Your task to perform on an android device: find snoozed emails in the gmail app Image 0: 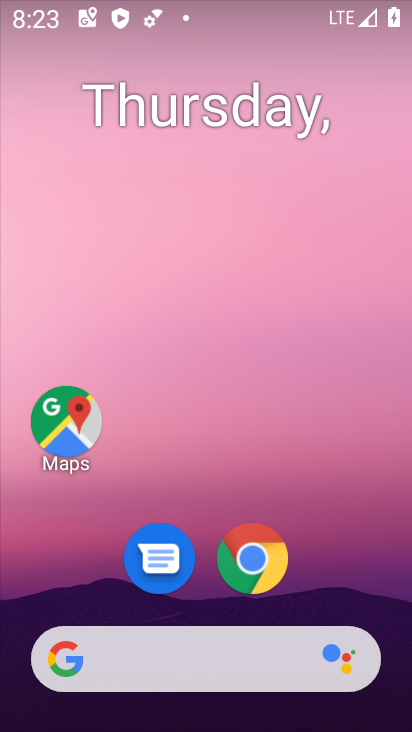
Step 0: click (236, 625)
Your task to perform on an android device: find snoozed emails in the gmail app Image 1: 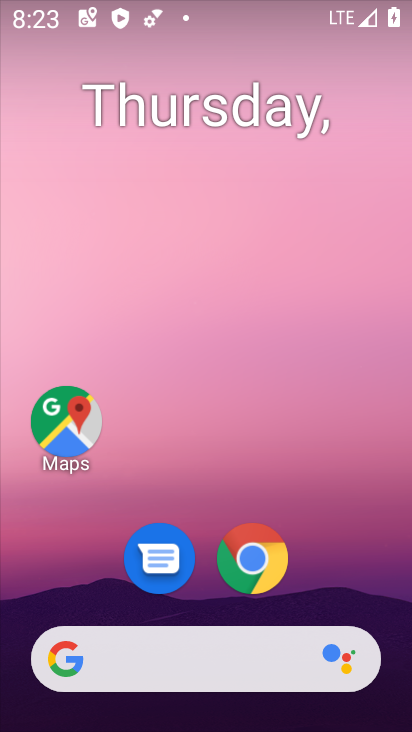
Step 1: drag from (236, 625) to (191, 105)
Your task to perform on an android device: find snoozed emails in the gmail app Image 2: 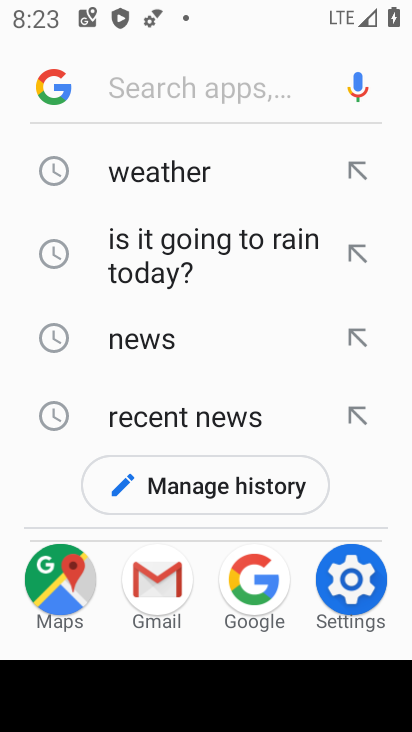
Step 2: press home button
Your task to perform on an android device: find snoozed emails in the gmail app Image 3: 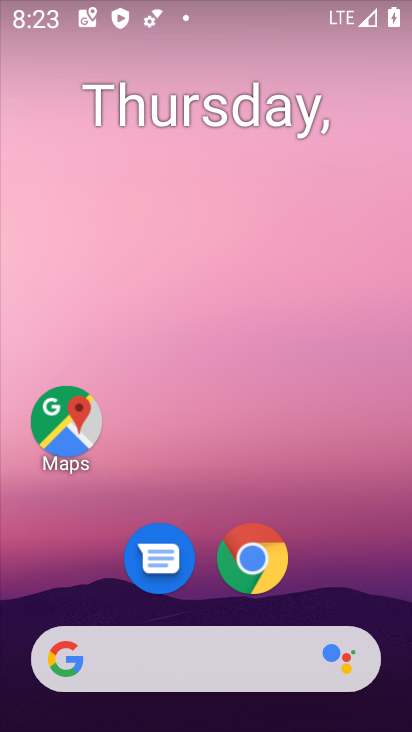
Step 3: drag from (214, 623) to (251, 202)
Your task to perform on an android device: find snoozed emails in the gmail app Image 4: 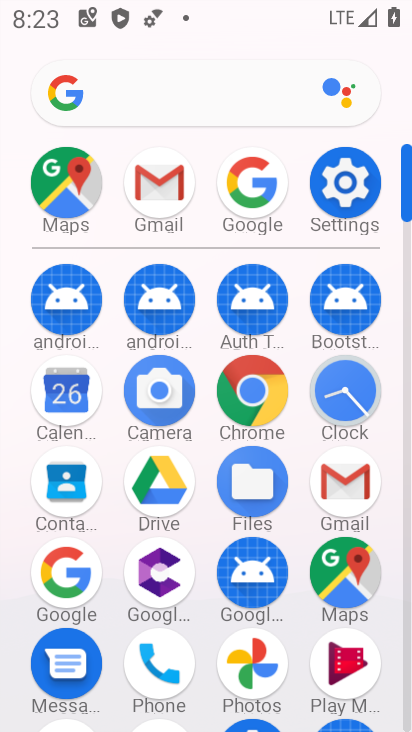
Step 4: click (355, 495)
Your task to perform on an android device: find snoozed emails in the gmail app Image 5: 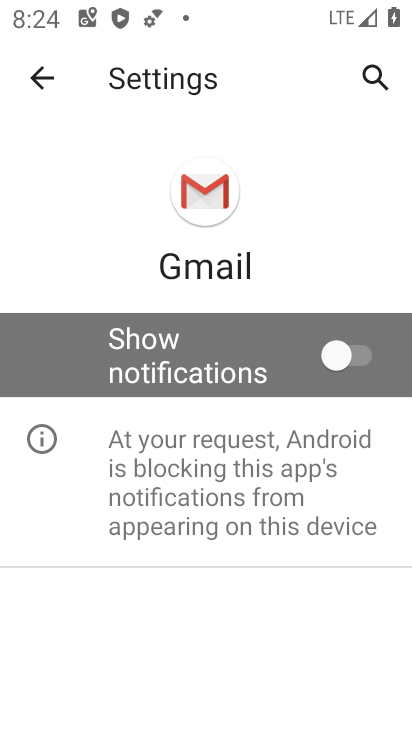
Step 5: click (40, 75)
Your task to perform on an android device: find snoozed emails in the gmail app Image 6: 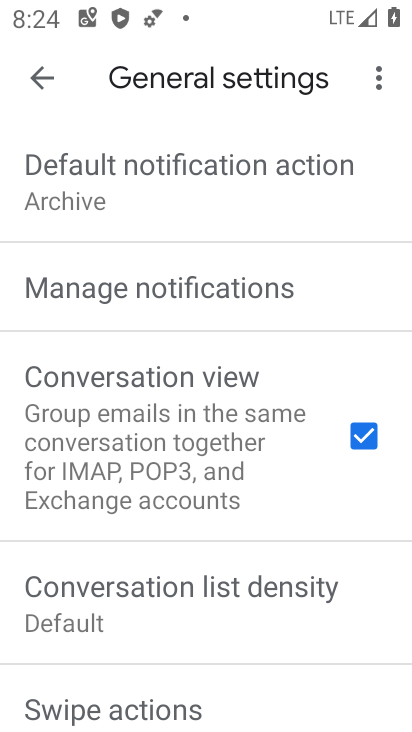
Step 6: click (36, 72)
Your task to perform on an android device: find snoozed emails in the gmail app Image 7: 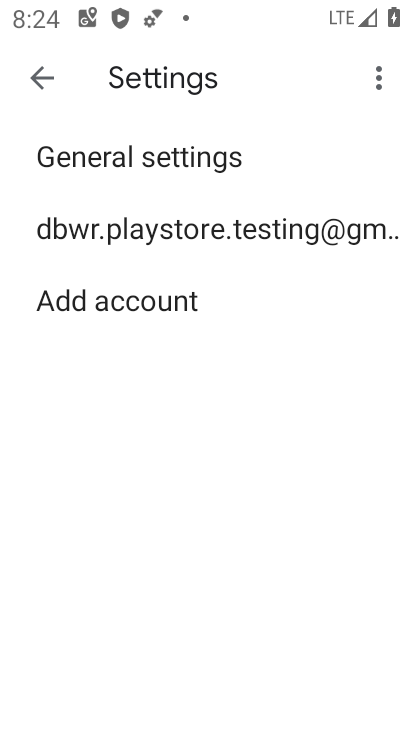
Step 7: click (30, 63)
Your task to perform on an android device: find snoozed emails in the gmail app Image 8: 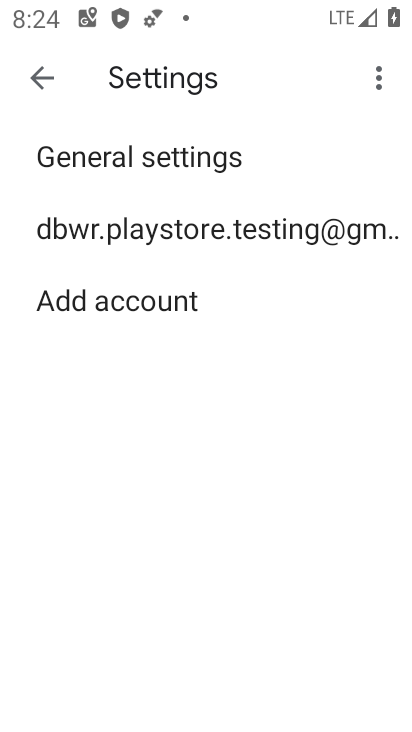
Step 8: click (42, 75)
Your task to perform on an android device: find snoozed emails in the gmail app Image 9: 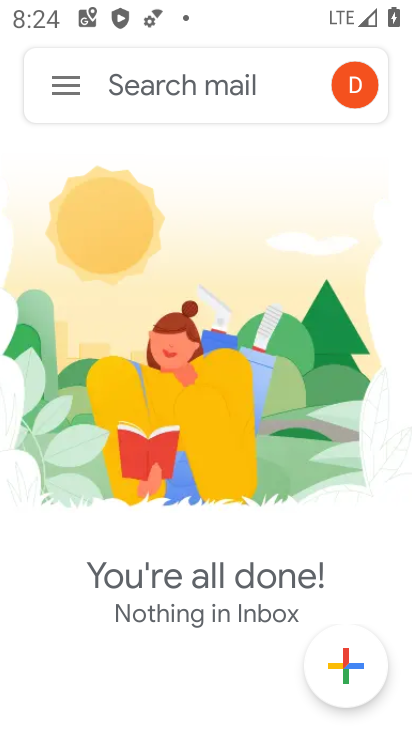
Step 9: click (61, 83)
Your task to perform on an android device: find snoozed emails in the gmail app Image 10: 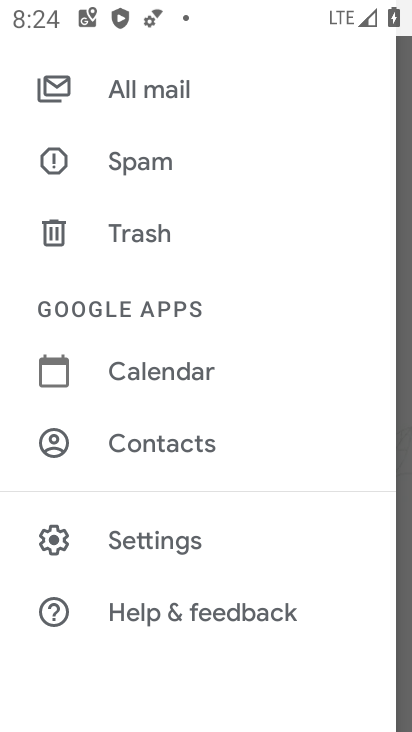
Step 10: drag from (239, 190) to (266, 678)
Your task to perform on an android device: find snoozed emails in the gmail app Image 11: 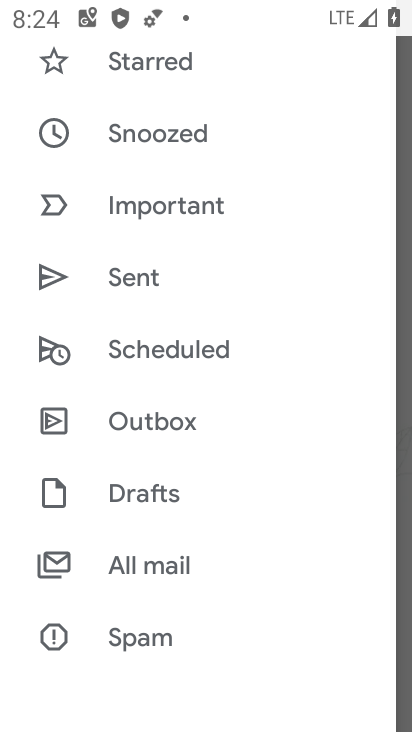
Step 11: click (174, 135)
Your task to perform on an android device: find snoozed emails in the gmail app Image 12: 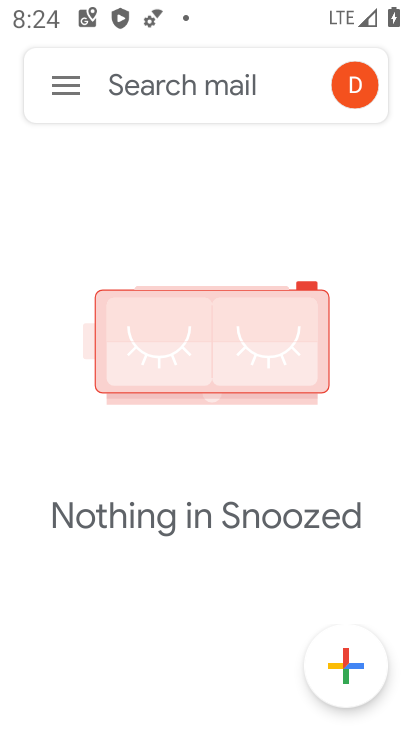
Step 12: task complete